Your task to perform on an android device: turn off notifications settings in the gmail app Image 0: 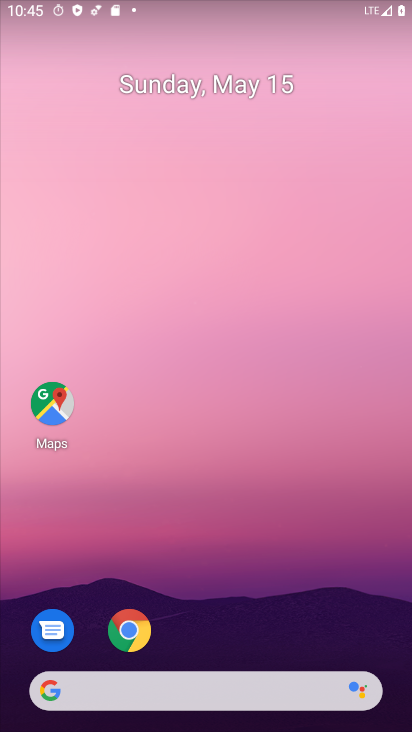
Step 0: drag from (237, 571) to (237, 192)
Your task to perform on an android device: turn off notifications settings in the gmail app Image 1: 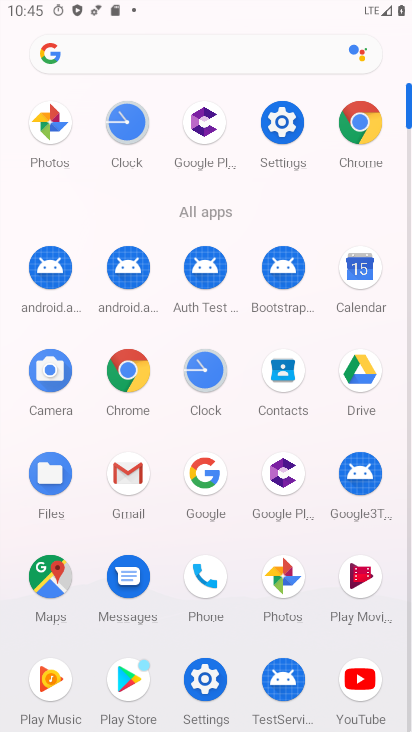
Step 1: click (111, 461)
Your task to perform on an android device: turn off notifications settings in the gmail app Image 2: 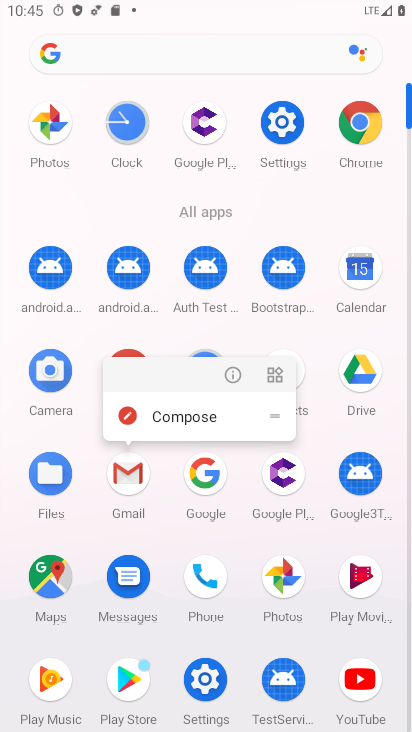
Step 2: click (130, 471)
Your task to perform on an android device: turn off notifications settings in the gmail app Image 3: 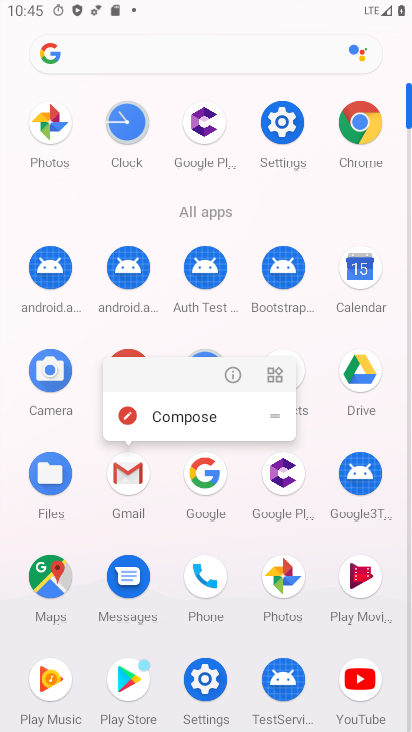
Step 3: click (231, 375)
Your task to perform on an android device: turn off notifications settings in the gmail app Image 4: 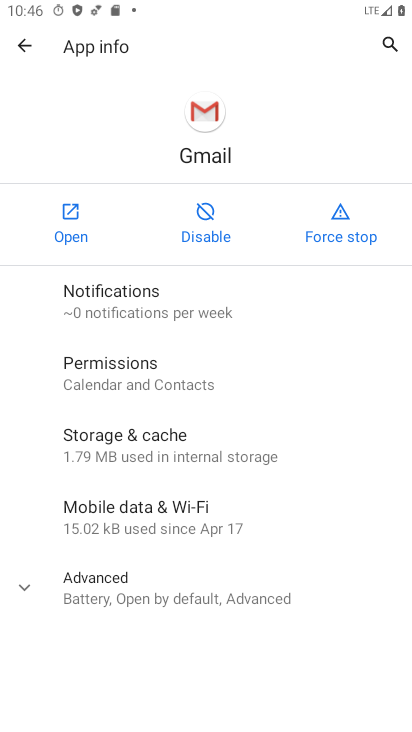
Step 4: click (135, 287)
Your task to perform on an android device: turn off notifications settings in the gmail app Image 5: 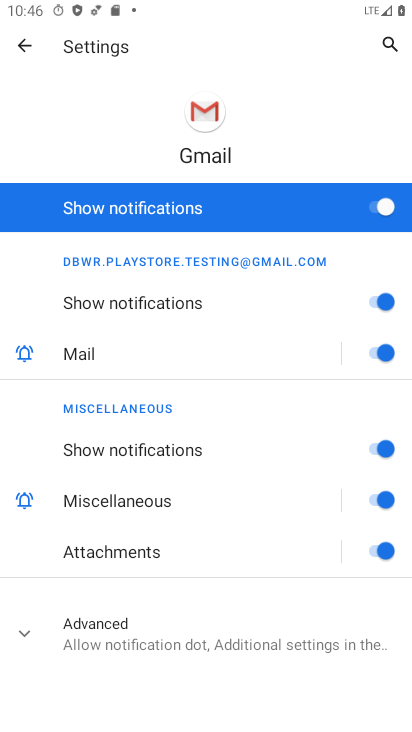
Step 5: click (388, 205)
Your task to perform on an android device: turn off notifications settings in the gmail app Image 6: 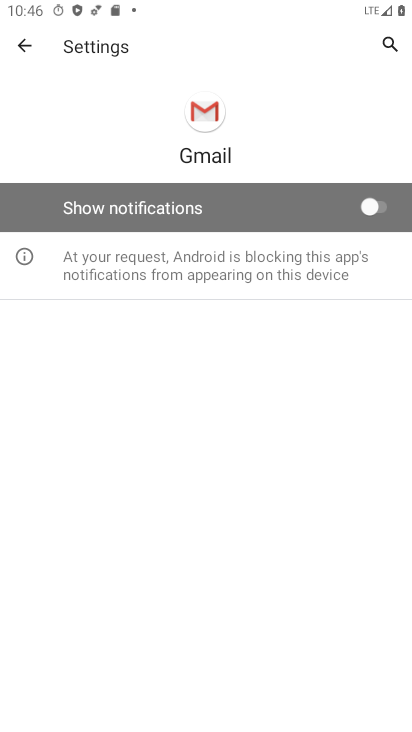
Step 6: task complete